Your task to perform on an android device: manage bookmarks in the chrome app Image 0: 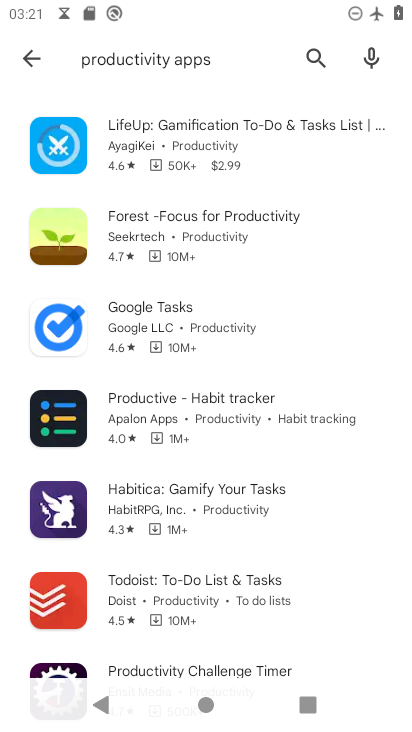
Step 0: press home button
Your task to perform on an android device: manage bookmarks in the chrome app Image 1: 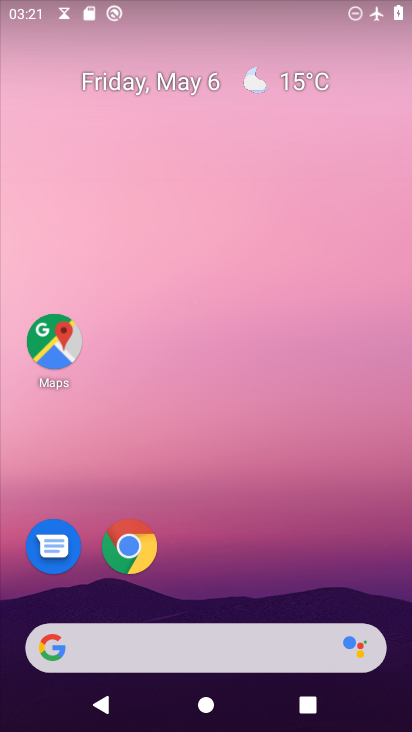
Step 1: click (129, 551)
Your task to perform on an android device: manage bookmarks in the chrome app Image 2: 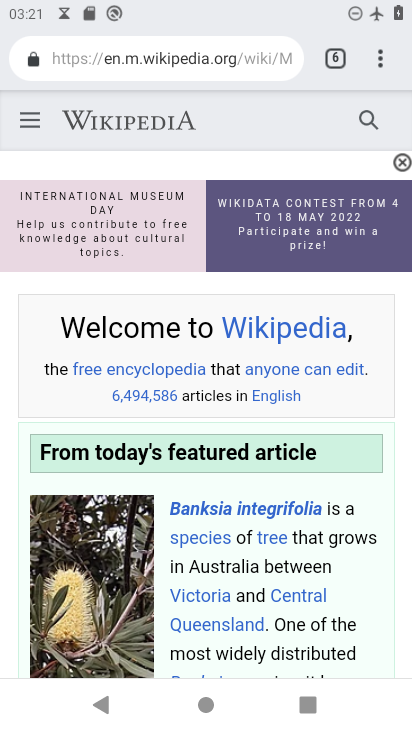
Step 2: click (386, 65)
Your task to perform on an android device: manage bookmarks in the chrome app Image 3: 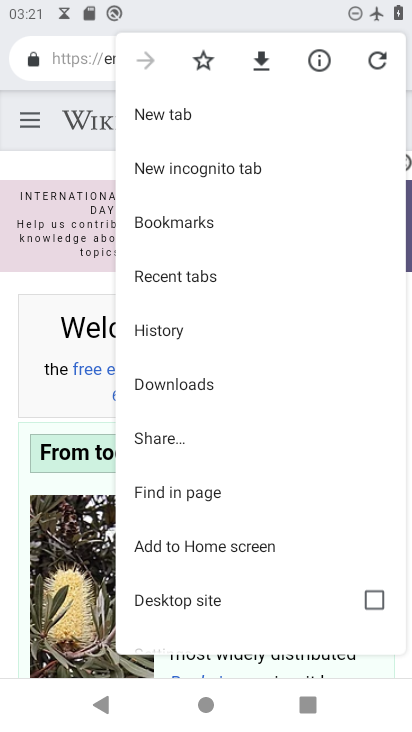
Step 3: click (186, 228)
Your task to perform on an android device: manage bookmarks in the chrome app Image 4: 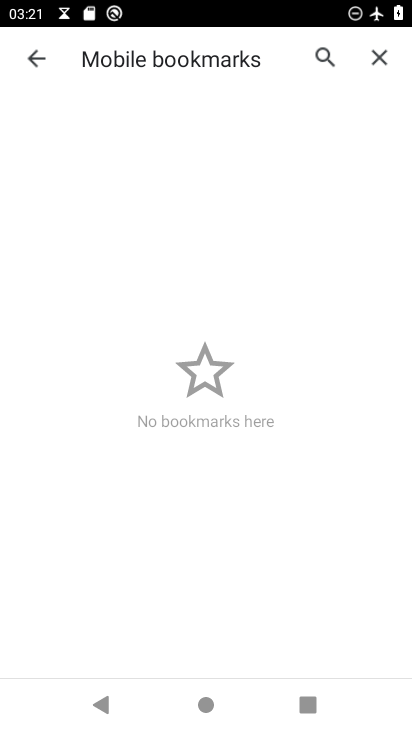
Step 4: task complete